Your task to perform on an android device: turn off location Image 0: 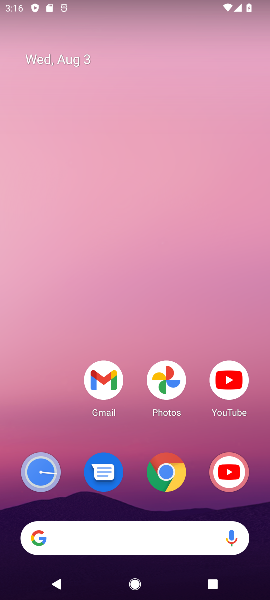
Step 0: drag from (202, 481) to (49, 20)
Your task to perform on an android device: turn off location Image 1: 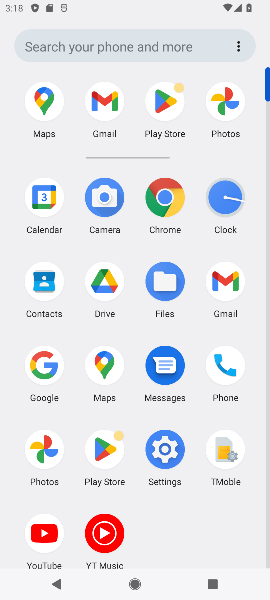
Step 1: click (164, 439)
Your task to perform on an android device: turn off location Image 2: 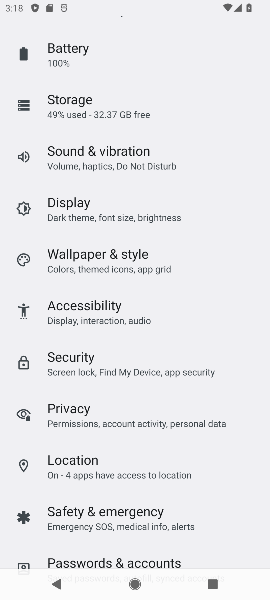
Step 2: click (114, 475)
Your task to perform on an android device: turn off location Image 3: 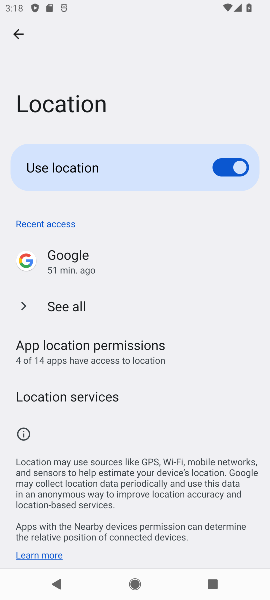
Step 3: click (159, 165)
Your task to perform on an android device: turn off location Image 4: 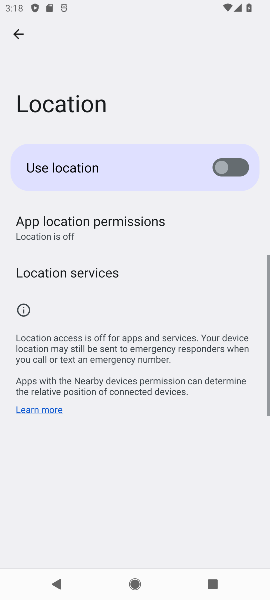
Step 4: task complete